Your task to perform on an android device: Go to settings Image 0: 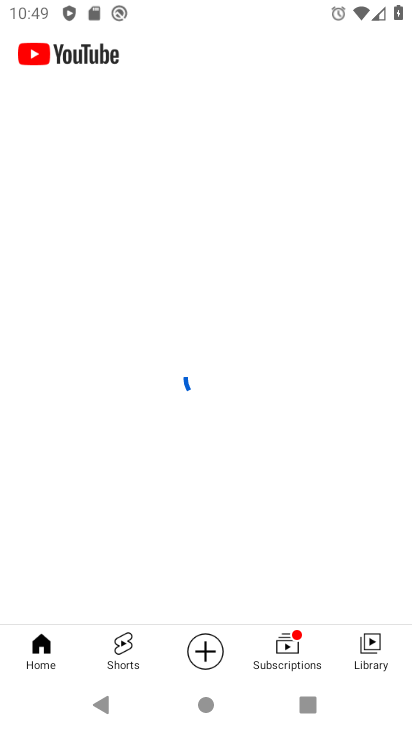
Step 0: press back button
Your task to perform on an android device: Go to settings Image 1: 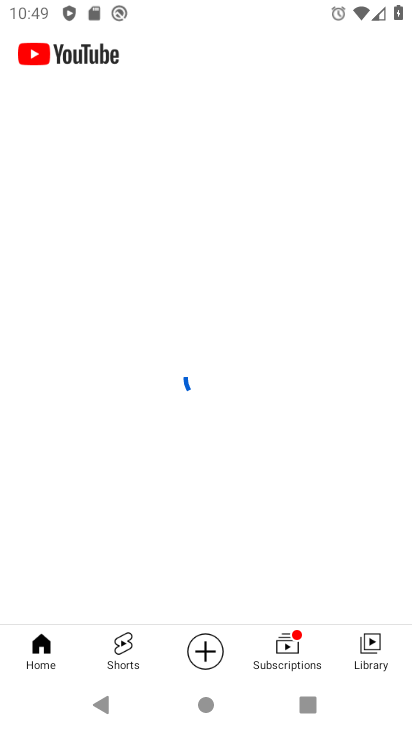
Step 1: click (167, 69)
Your task to perform on an android device: Go to settings Image 2: 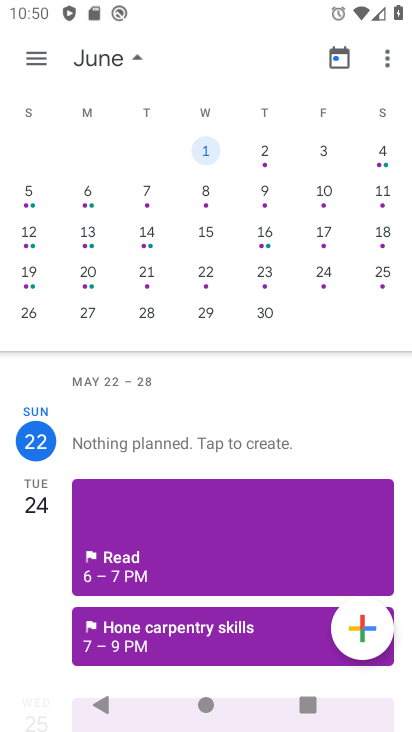
Step 2: press home button
Your task to perform on an android device: Go to settings Image 3: 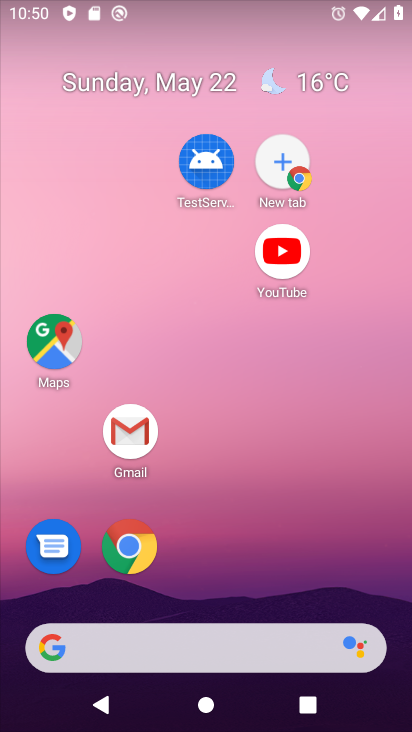
Step 3: drag from (276, 705) to (203, 19)
Your task to perform on an android device: Go to settings Image 4: 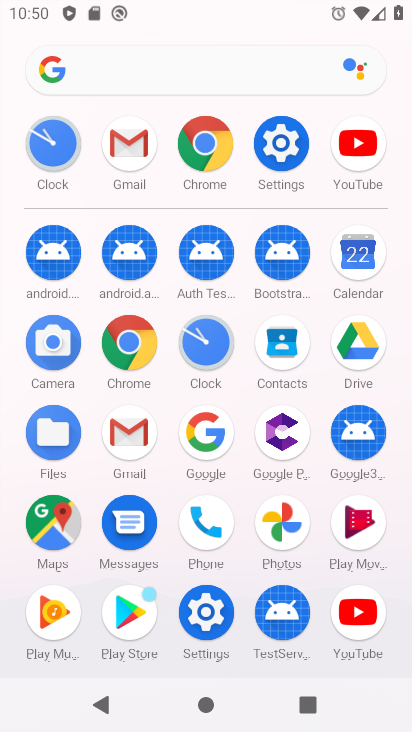
Step 4: click (271, 131)
Your task to perform on an android device: Go to settings Image 5: 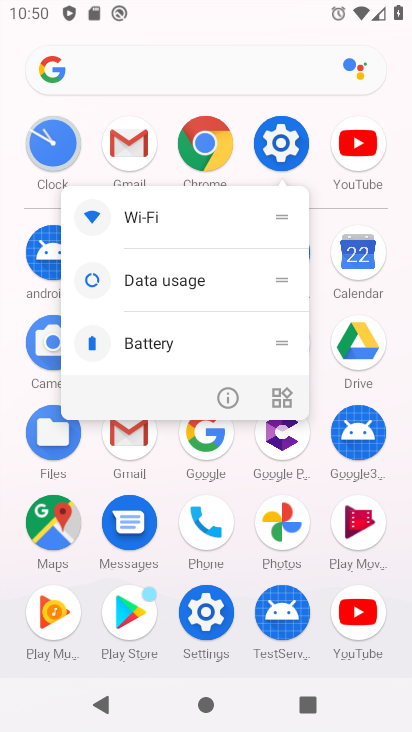
Step 5: click (144, 217)
Your task to perform on an android device: Go to settings Image 6: 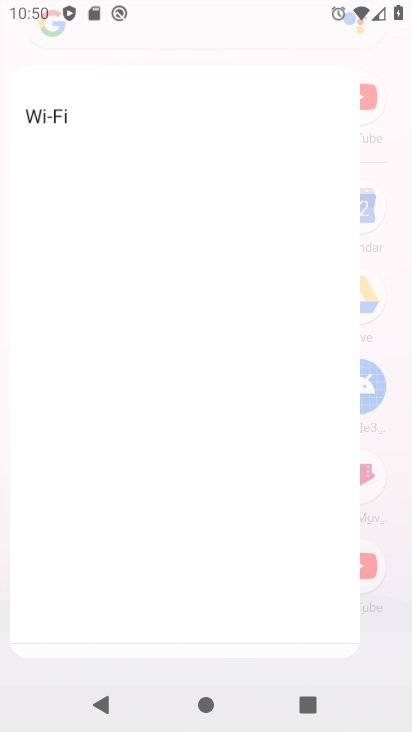
Step 6: click (150, 218)
Your task to perform on an android device: Go to settings Image 7: 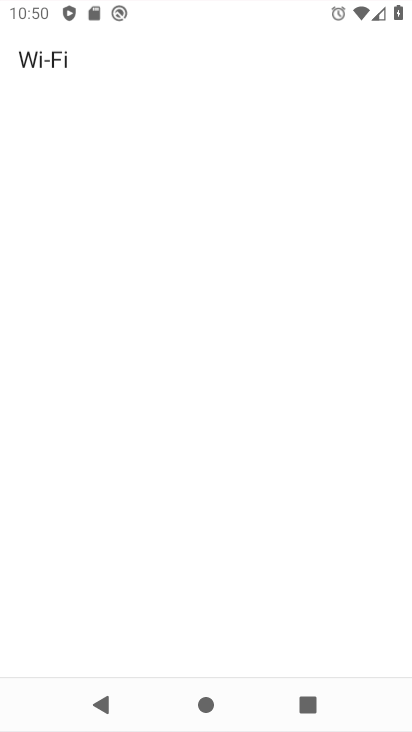
Step 7: click (153, 217)
Your task to perform on an android device: Go to settings Image 8: 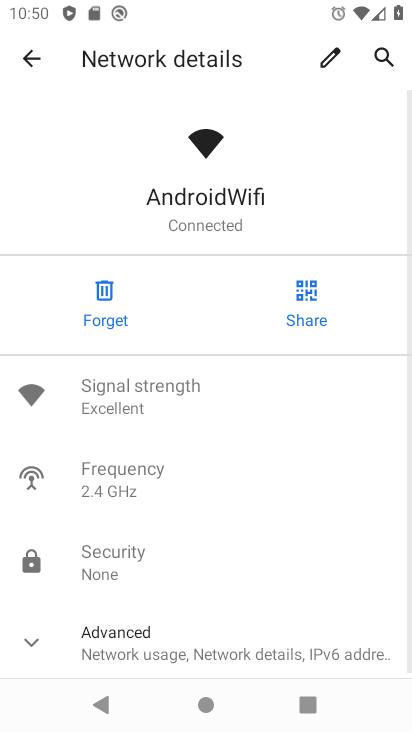
Step 8: click (33, 56)
Your task to perform on an android device: Go to settings Image 9: 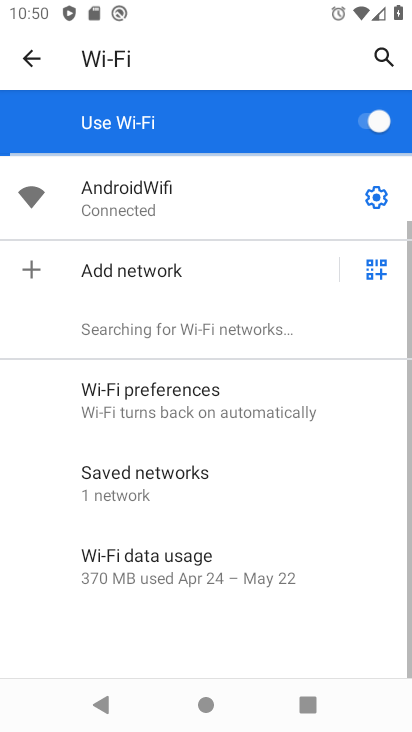
Step 9: click (7, 69)
Your task to perform on an android device: Go to settings Image 10: 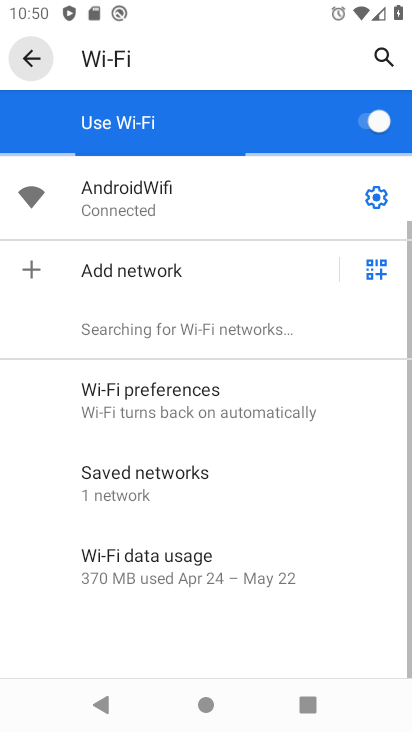
Step 10: click (18, 66)
Your task to perform on an android device: Go to settings Image 11: 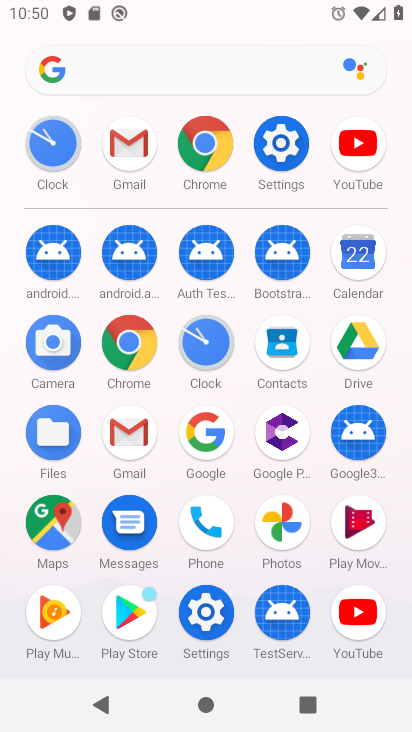
Step 11: click (300, 153)
Your task to perform on an android device: Go to settings Image 12: 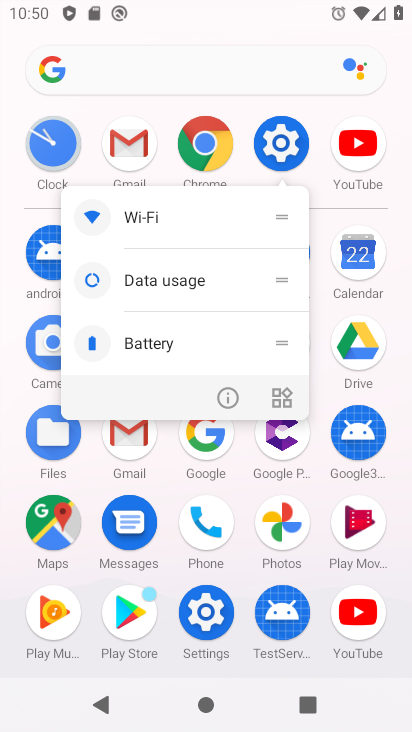
Step 12: click (280, 143)
Your task to perform on an android device: Go to settings Image 13: 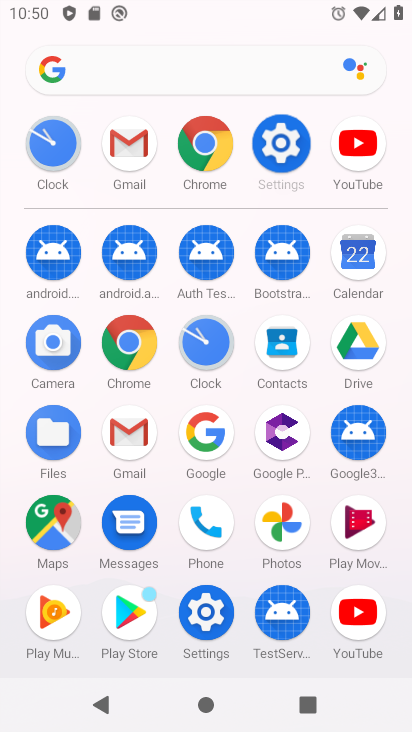
Step 13: click (280, 143)
Your task to perform on an android device: Go to settings Image 14: 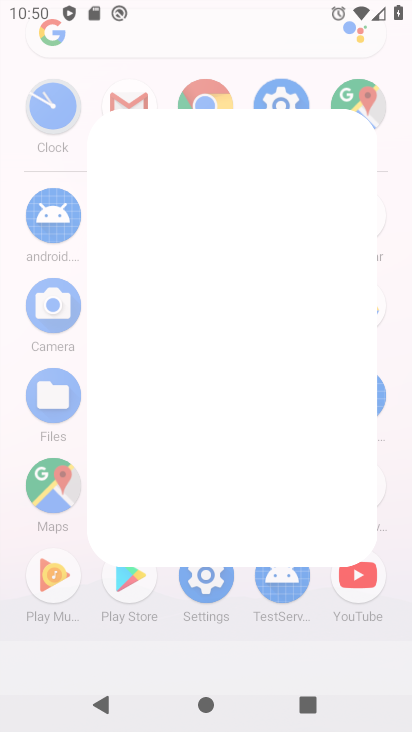
Step 14: click (280, 143)
Your task to perform on an android device: Go to settings Image 15: 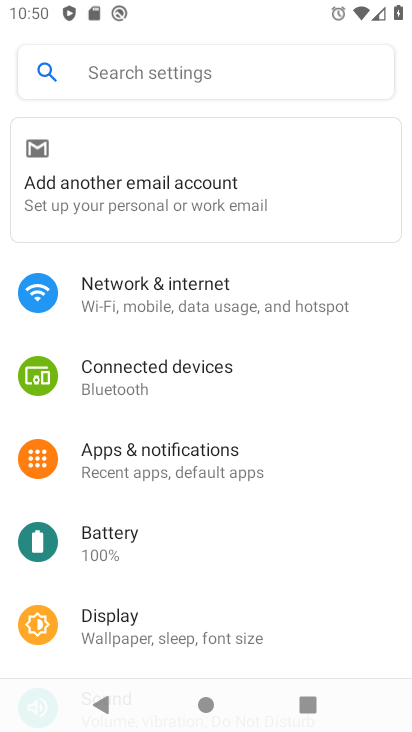
Step 15: task complete